Your task to perform on an android device: turn off translation in the chrome app Image 0: 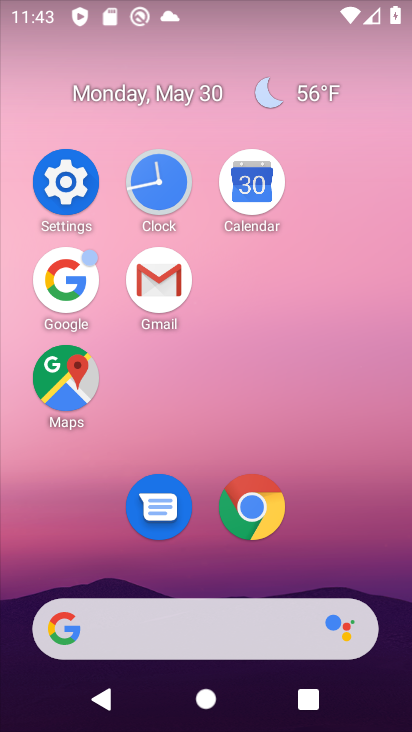
Step 0: click (256, 512)
Your task to perform on an android device: turn off translation in the chrome app Image 1: 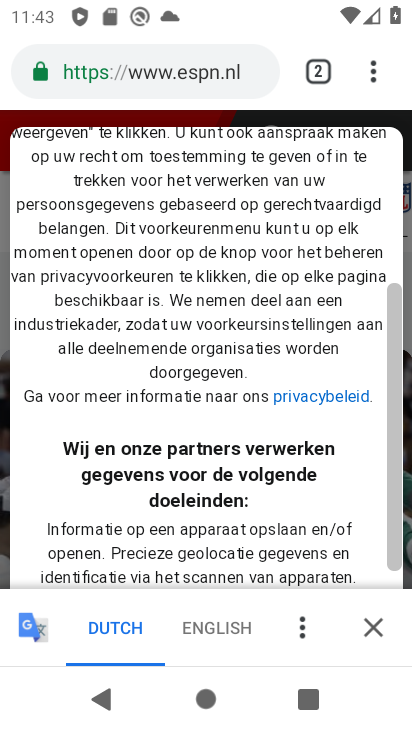
Step 1: click (383, 70)
Your task to perform on an android device: turn off translation in the chrome app Image 2: 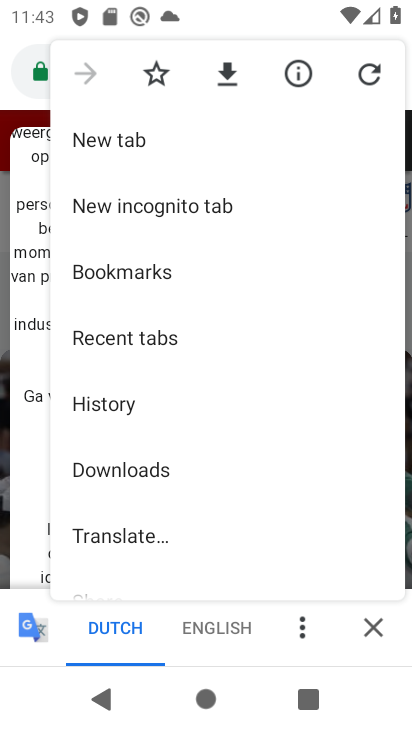
Step 2: drag from (285, 520) to (251, 154)
Your task to perform on an android device: turn off translation in the chrome app Image 3: 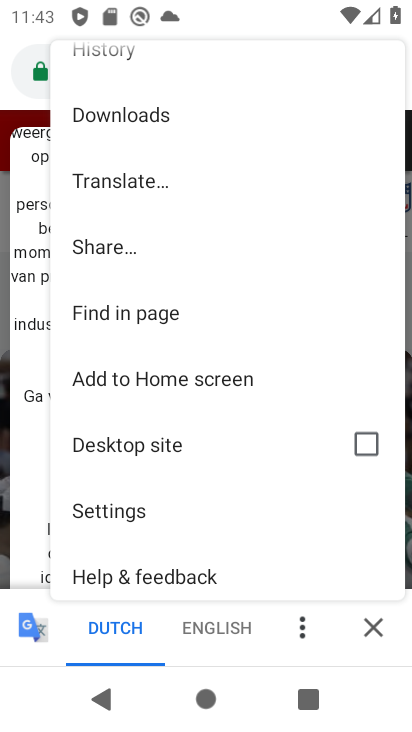
Step 3: click (162, 512)
Your task to perform on an android device: turn off translation in the chrome app Image 4: 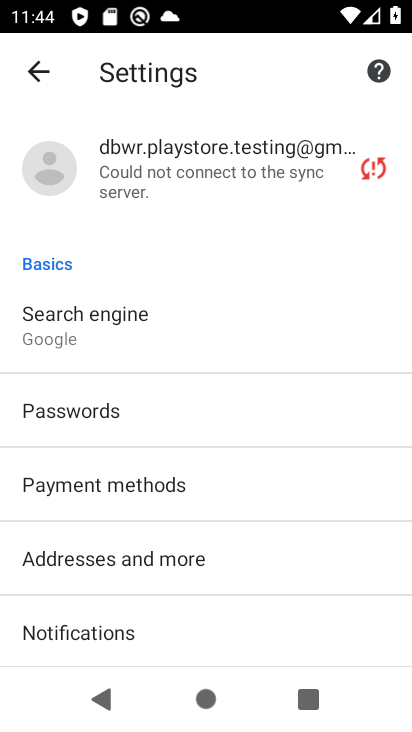
Step 4: drag from (176, 505) to (209, 144)
Your task to perform on an android device: turn off translation in the chrome app Image 5: 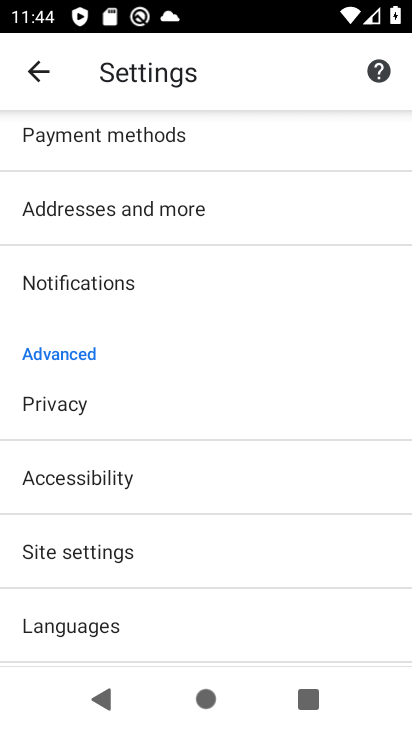
Step 5: click (164, 628)
Your task to perform on an android device: turn off translation in the chrome app Image 6: 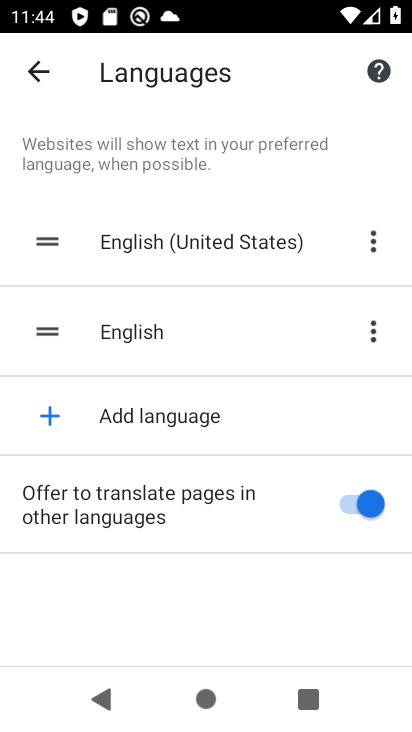
Step 6: click (369, 515)
Your task to perform on an android device: turn off translation in the chrome app Image 7: 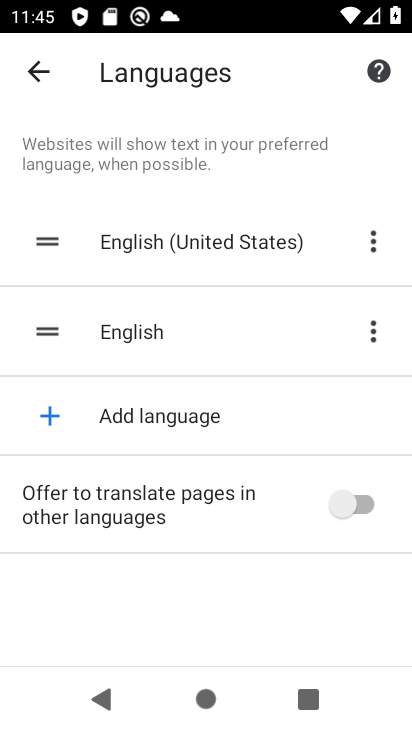
Step 7: task complete